Your task to perform on an android device: open app "ZOOM Cloud Meetings" (install if not already installed) and enter user name: "bauxite@icloud.com" and password: "dim" Image 0: 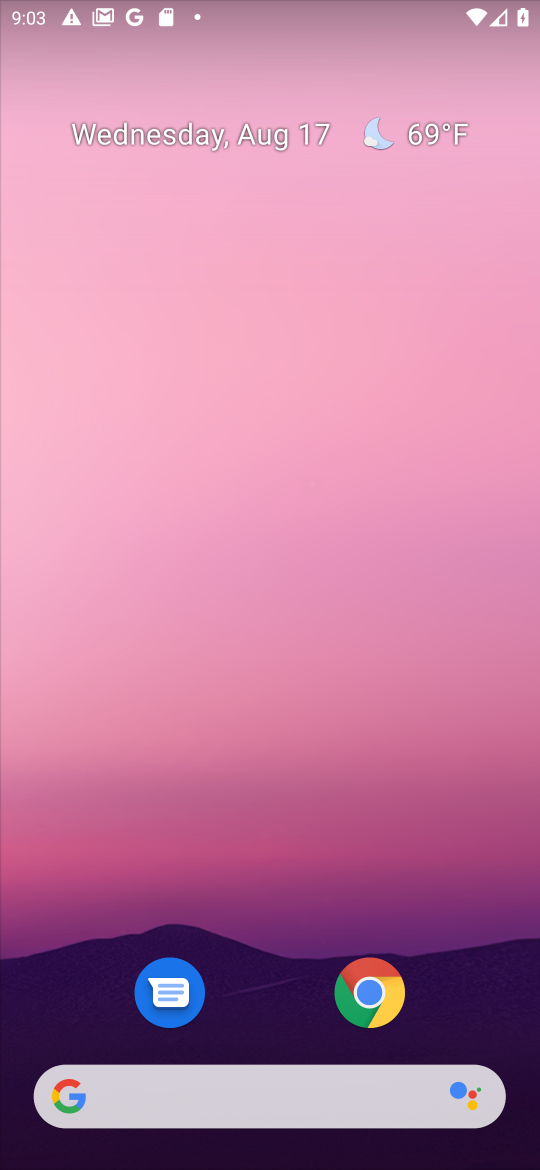
Step 0: drag from (484, 997) to (252, 96)
Your task to perform on an android device: open app "ZOOM Cloud Meetings" (install if not already installed) and enter user name: "bauxite@icloud.com" and password: "dim" Image 1: 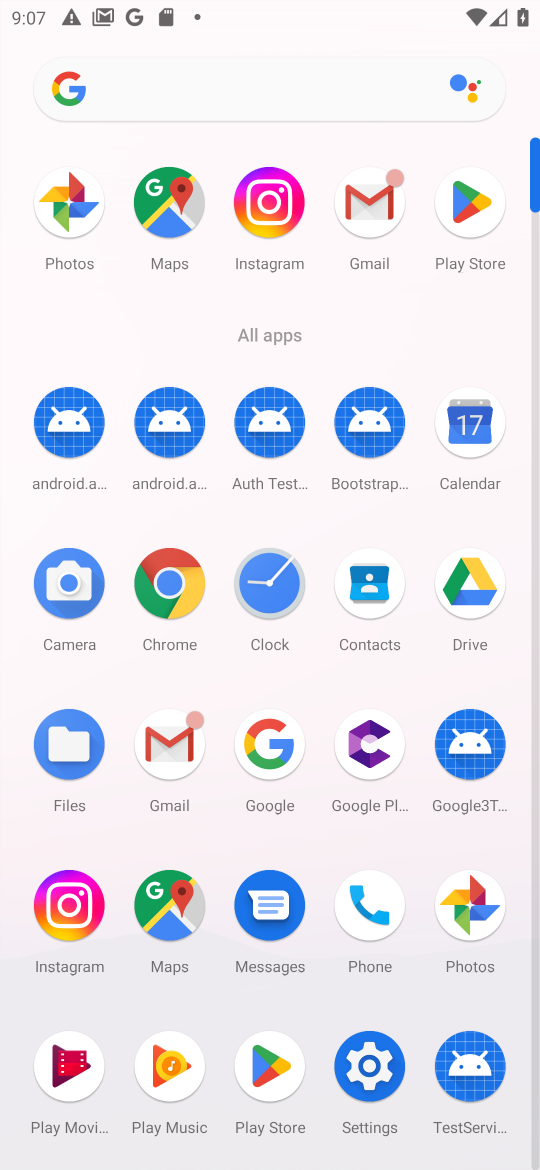
Step 1: click (261, 1081)
Your task to perform on an android device: open app "ZOOM Cloud Meetings" (install if not already installed) and enter user name: "bauxite@icloud.com" and password: "dim" Image 2: 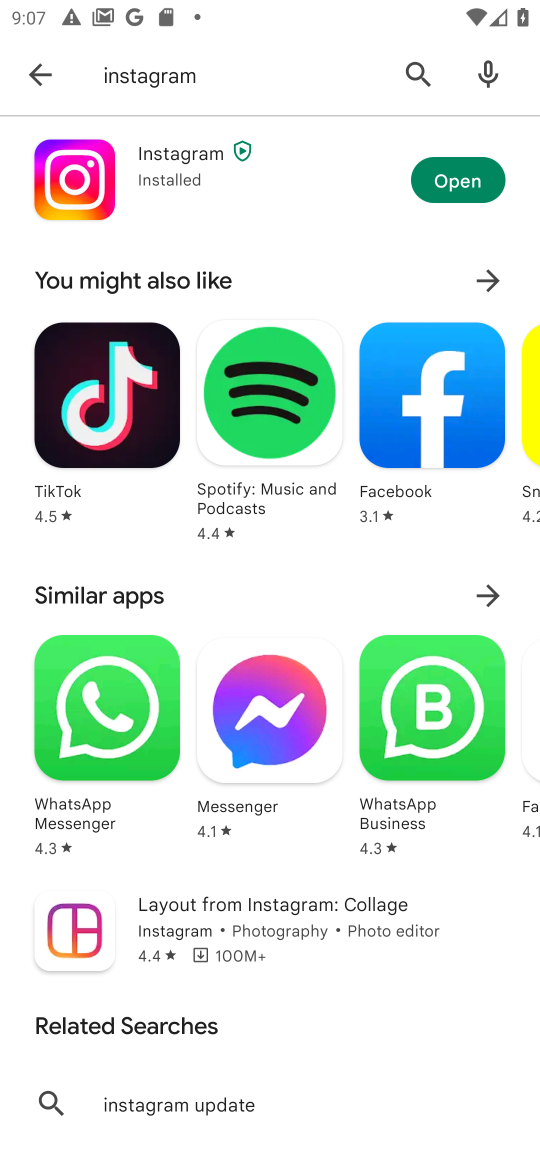
Step 2: press back button
Your task to perform on an android device: open app "ZOOM Cloud Meetings" (install if not already installed) and enter user name: "bauxite@icloud.com" and password: "dim" Image 3: 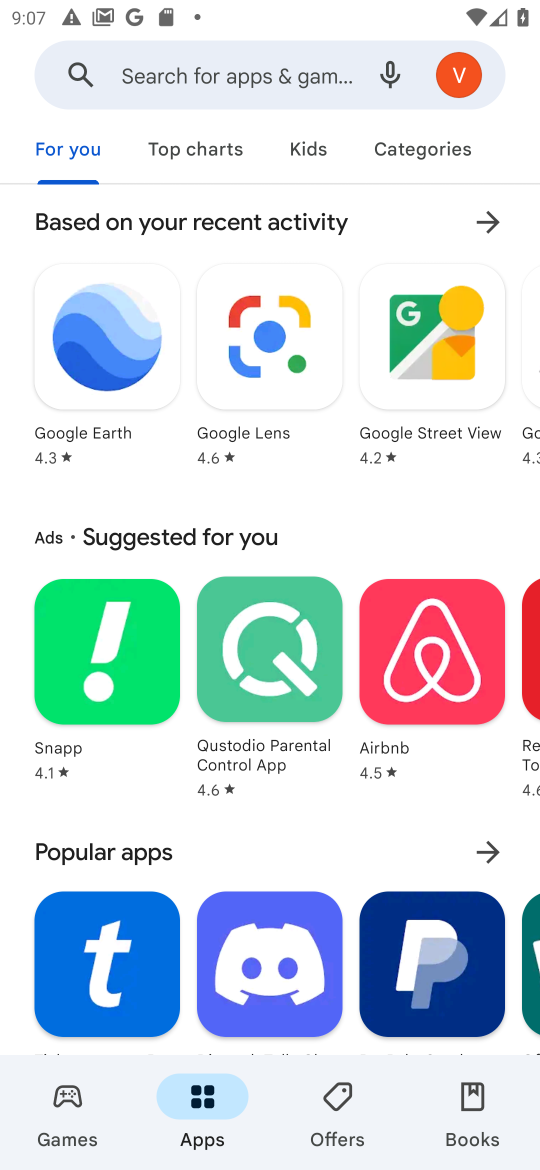
Step 3: click (181, 67)
Your task to perform on an android device: open app "ZOOM Cloud Meetings" (install if not already installed) and enter user name: "bauxite@icloud.com" and password: "dim" Image 4: 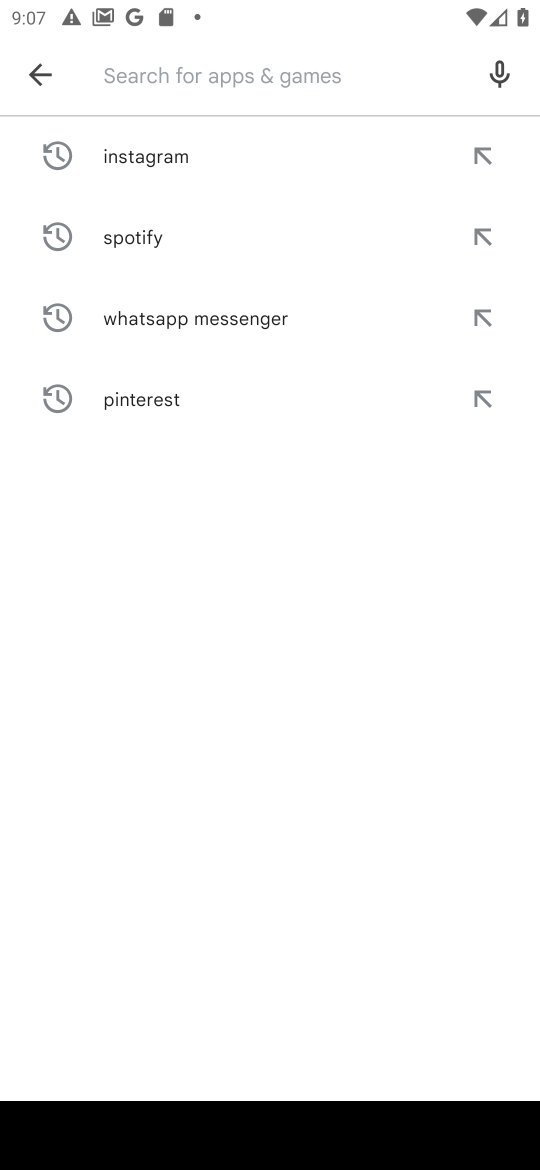
Step 4: type "ZOOM Cloud Meetings"
Your task to perform on an android device: open app "ZOOM Cloud Meetings" (install if not already installed) and enter user name: "bauxite@icloud.com" and password: "dim" Image 5: 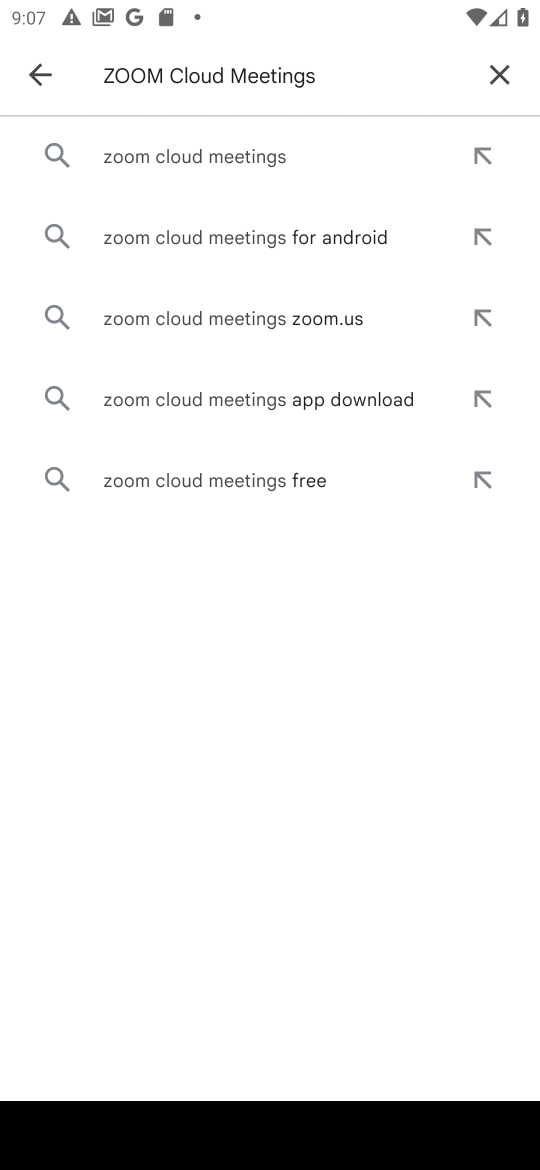
Step 5: click (191, 154)
Your task to perform on an android device: open app "ZOOM Cloud Meetings" (install if not already installed) and enter user name: "bauxite@icloud.com" and password: "dim" Image 6: 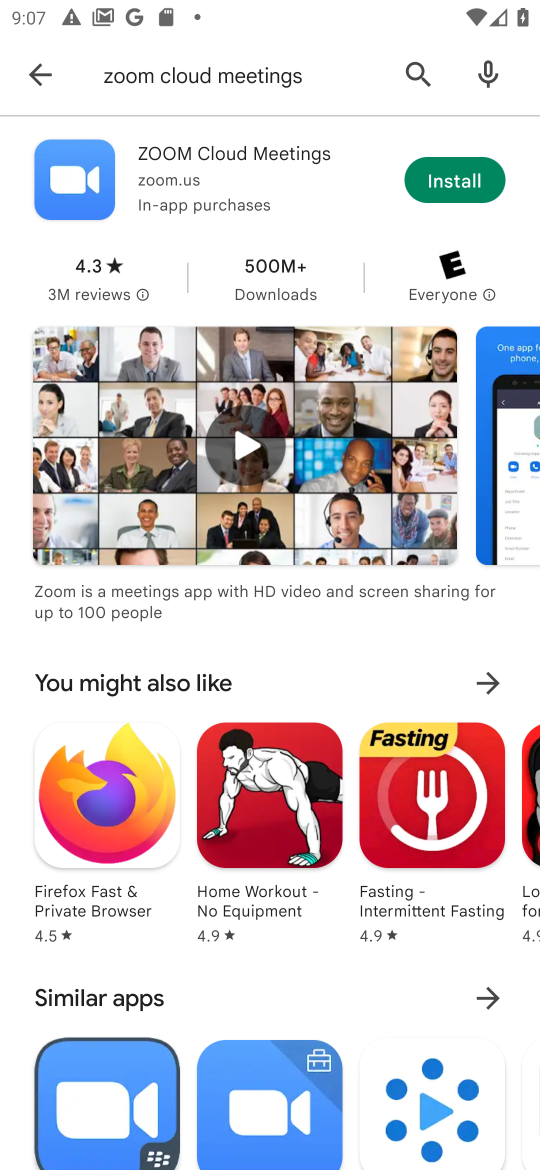
Step 6: task complete